Your task to perform on an android device: Search for sushi restaurants on Maps Image 0: 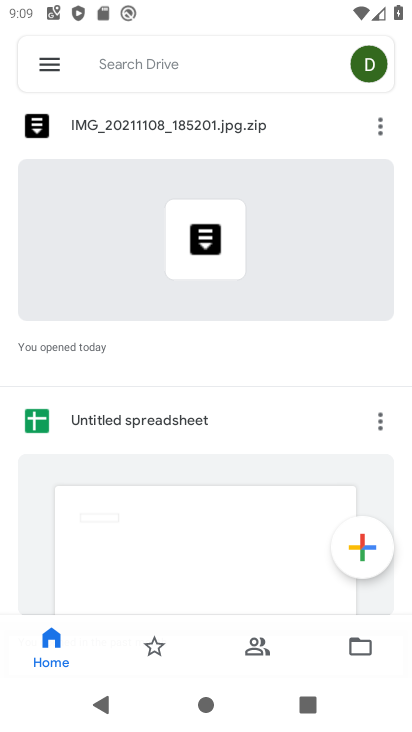
Step 0: press home button
Your task to perform on an android device: Search for sushi restaurants on Maps Image 1: 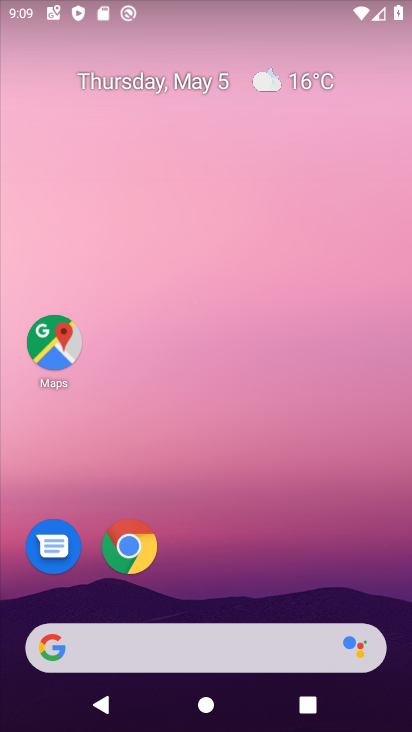
Step 1: drag from (228, 648) to (31, 267)
Your task to perform on an android device: Search for sushi restaurants on Maps Image 2: 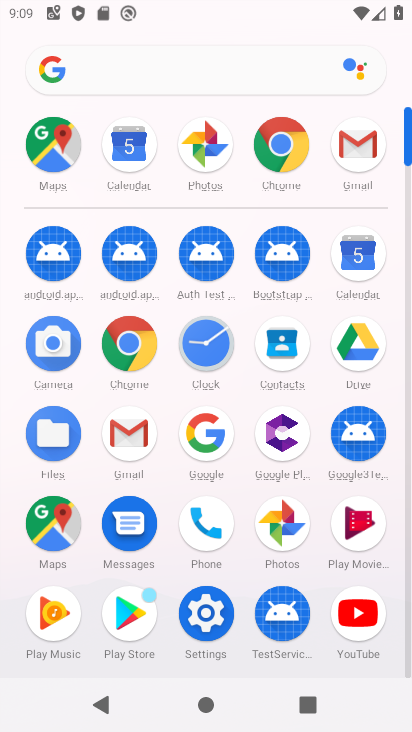
Step 2: click (44, 161)
Your task to perform on an android device: Search for sushi restaurants on Maps Image 3: 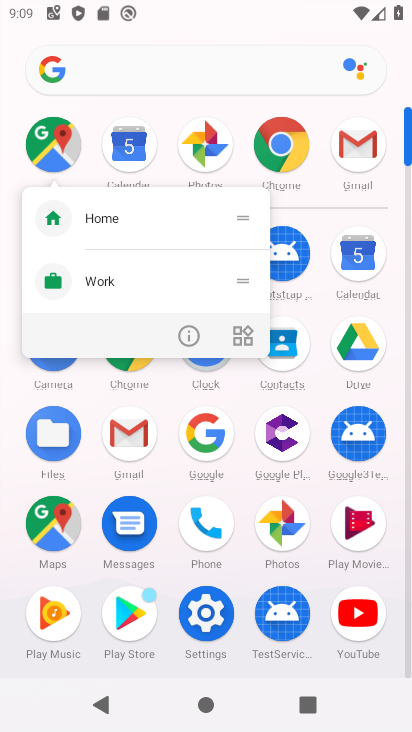
Step 3: click (52, 154)
Your task to perform on an android device: Search for sushi restaurants on Maps Image 4: 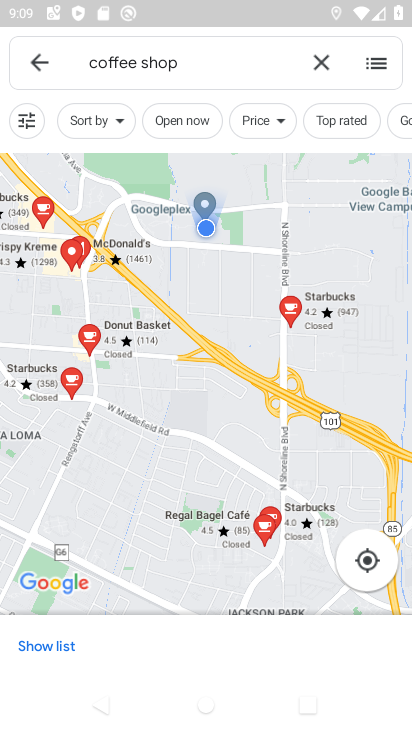
Step 4: click (320, 58)
Your task to perform on an android device: Search for sushi restaurants on Maps Image 5: 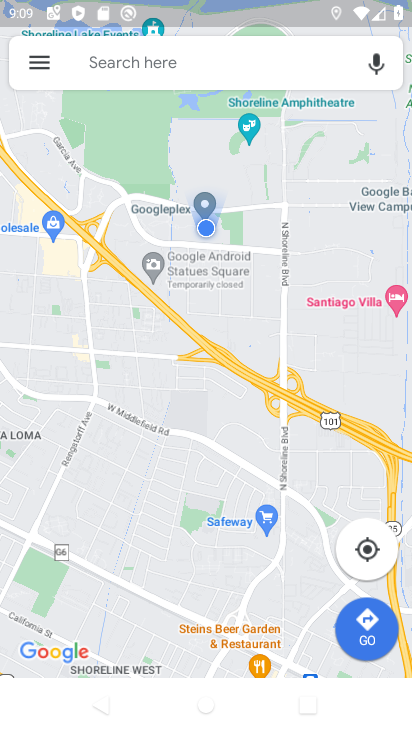
Step 5: click (111, 59)
Your task to perform on an android device: Search for sushi restaurants on Maps Image 6: 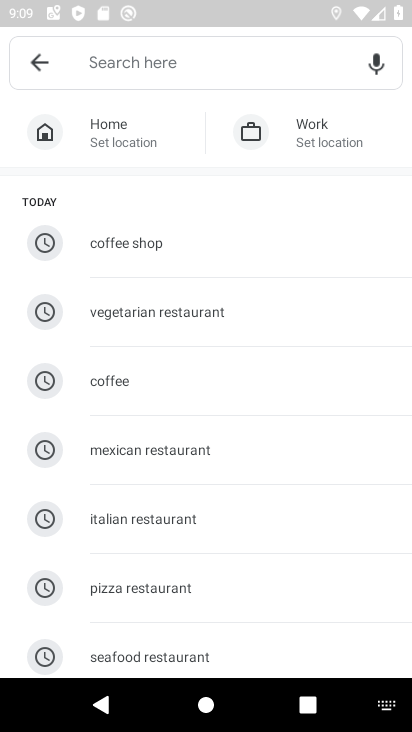
Step 6: type "sushi restaurants"
Your task to perform on an android device: Search for sushi restaurants on Maps Image 7: 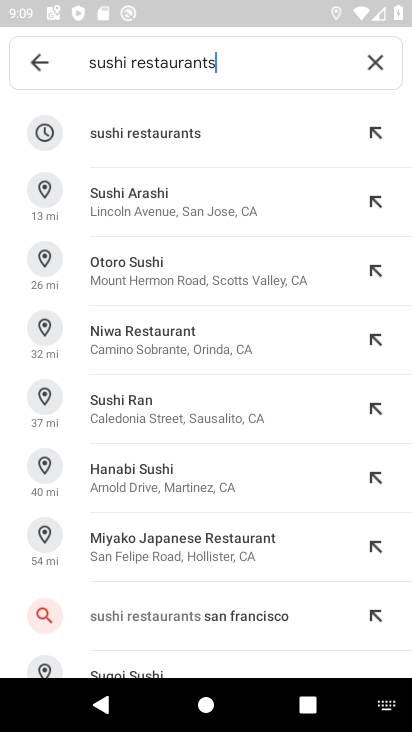
Step 7: click (139, 142)
Your task to perform on an android device: Search for sushi restaurants on Maps Image 8: 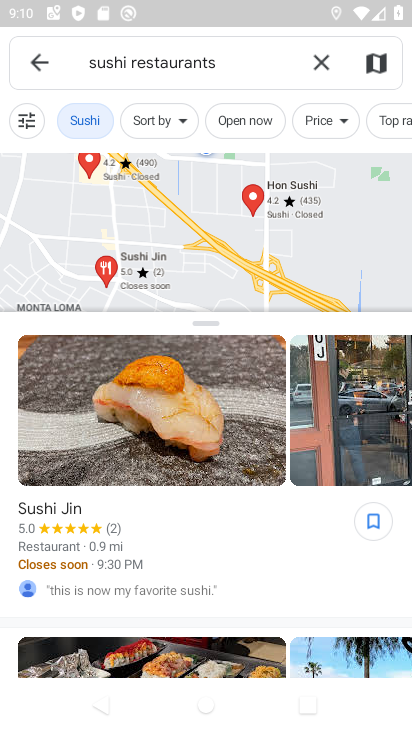
Step 8: task complete